Your task to perform on an android device: delete a single message in the gmail app Image 0: 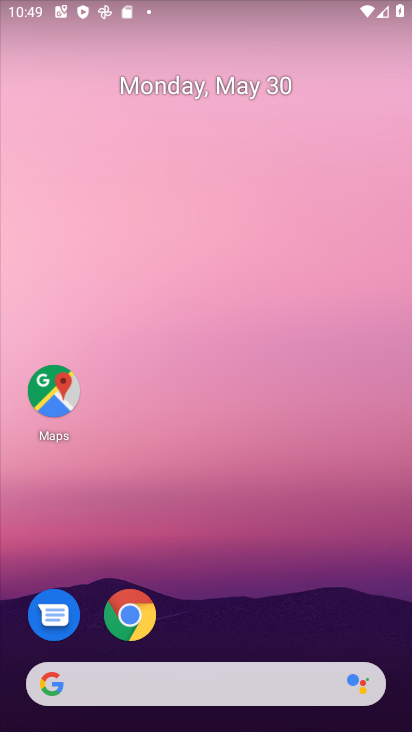
Step 0: drag from (264, 420) to (222, 11)
Your task to perform on an android device: delete a single message in the gmail app Image 1: 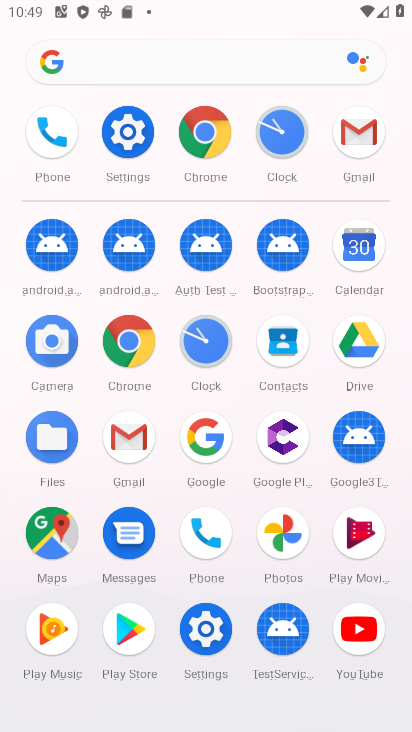
Step 1: click (127, 438)
Your task to perform on an android device: delete a single message in the gmail app Image 2: 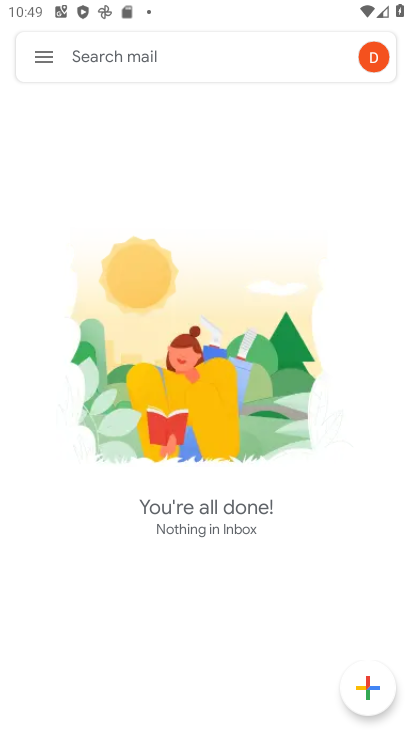
Step 2: click (45, 52)
Your task to perform on an android device: delete a single message in the gmail app Image 3: 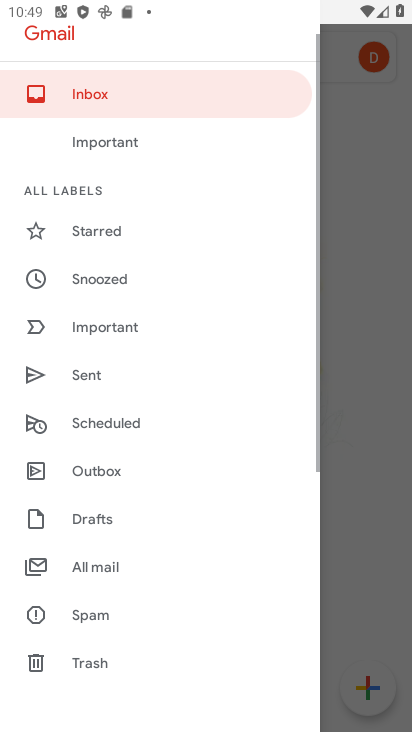
Step 3: click (145, 93)
Your task to perform on an android device: delete a single message in the gmail app Image 4: 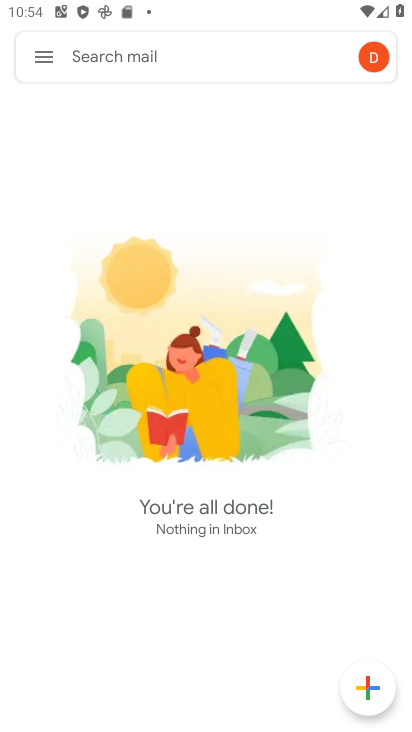
Step 4: task complete